Your task to perform on an android device: turn on showing notifications on the lock screen Image 0: 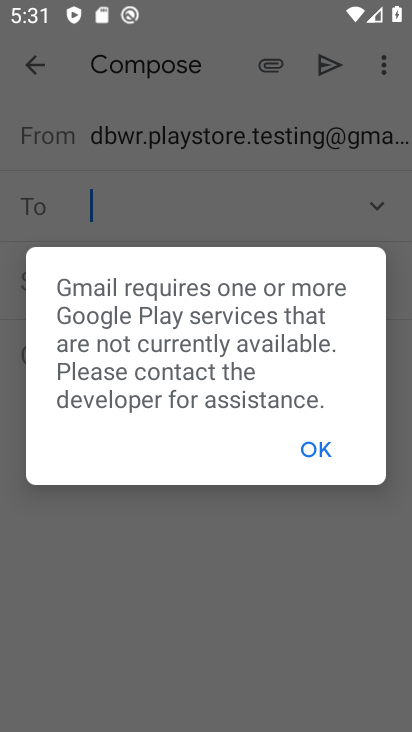
Step 0: press home button
Your task to perform on an android device: turn on showing notifications on the lock screen Image 1: 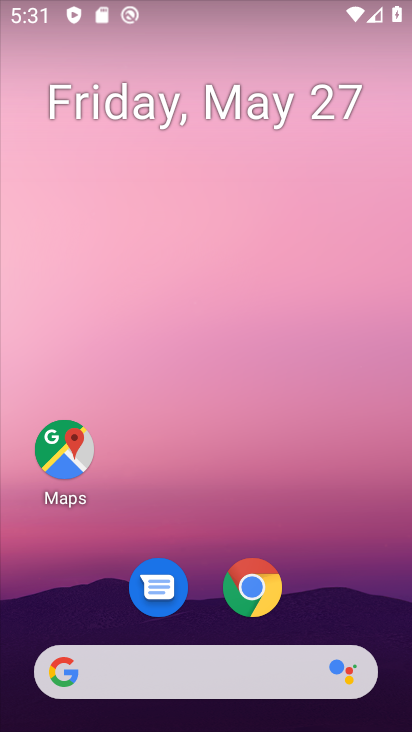
Step 1: drag from (296, 589) to (262, 36)
Your task to perform on an android device: turn on showing notifications on the lock screen Image 2: 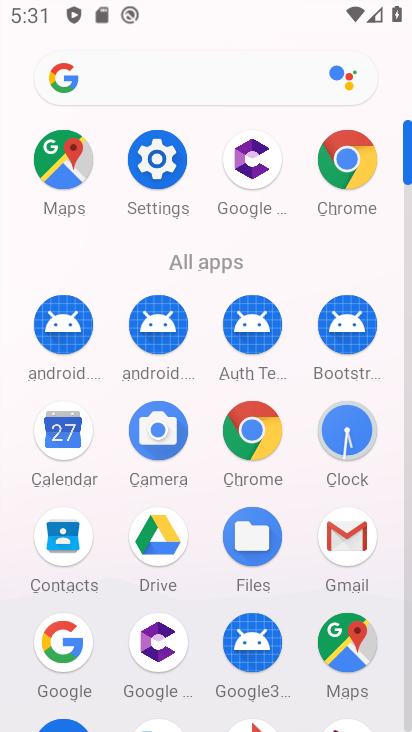
Step 2: click (155, 148)
Your task to perform on an android device: turn on showing notifications on the lock screen Image 3: 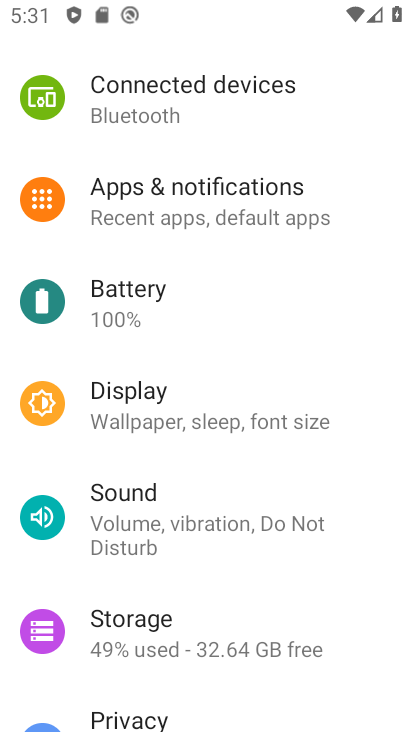
Step 3: click (247, 180)
Your task to perform on an android device: turn on showing notifications on the lock screen Image 4: 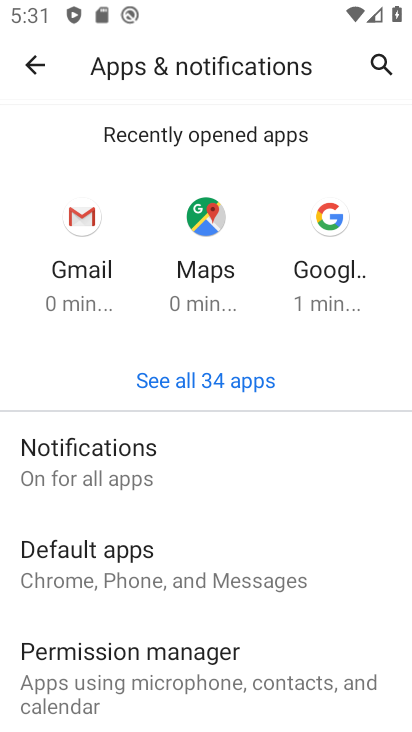
Step 4: click (52, 428)
Your task to perform on an android device: turn on showing notifications on the lock screen Image 5: 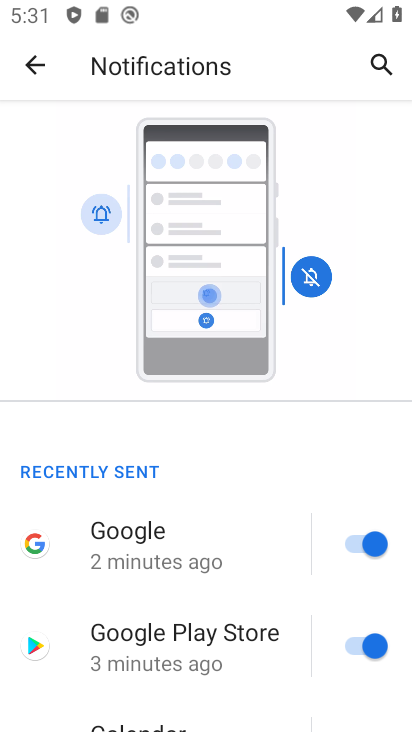
Step 5: drag from (229, 498) to (155, 117)
Your task to perform on an android device: turn on showing notifications on the lock screen Image 6: 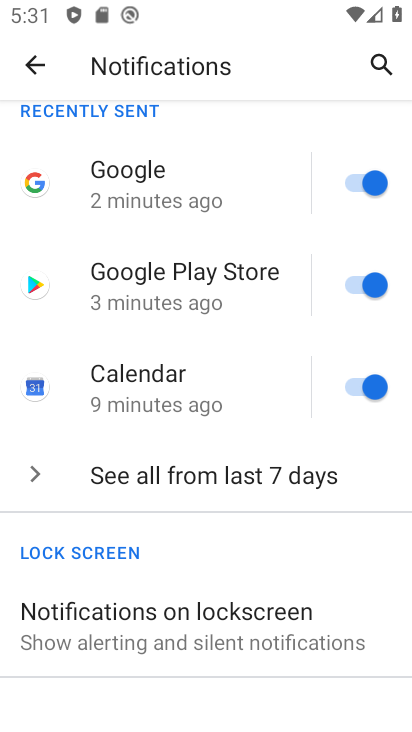
Step 6: click (168, 605)
Your task to perform on an android device: turn on showing notifications on the lock screen Image 7: 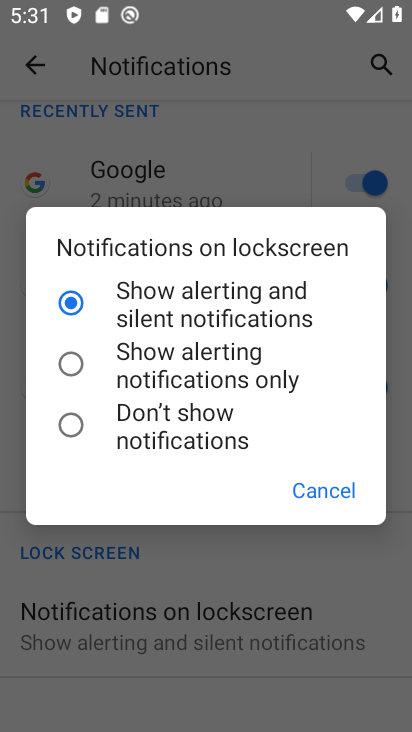
Step 7: click (195, 369)
Your task to perform on an android device: turn on showing notifications on the lock screen Image 8: 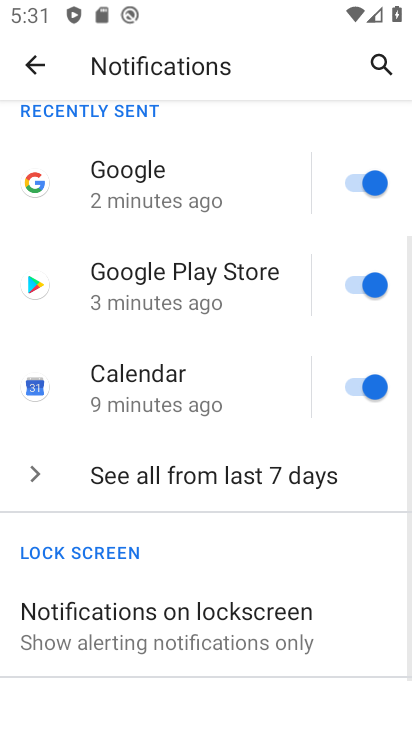
Step 8: task complete